Your task to perform on an android device: Open notification settings Image 0: 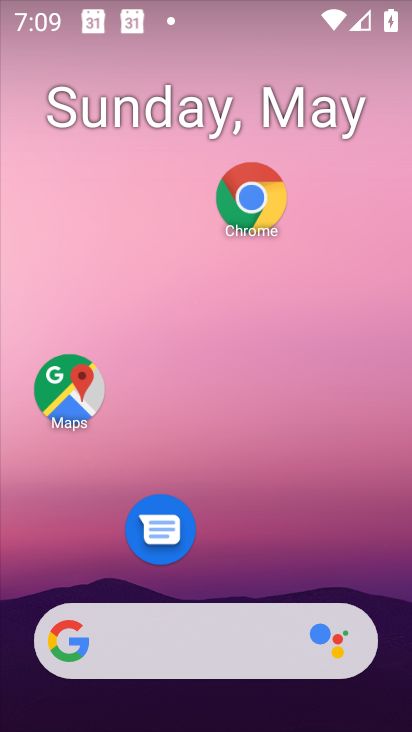
Step 0: drag from (215, 561) to (241, 221)
Your task to perform on an android device: Open notification settings Image 1: 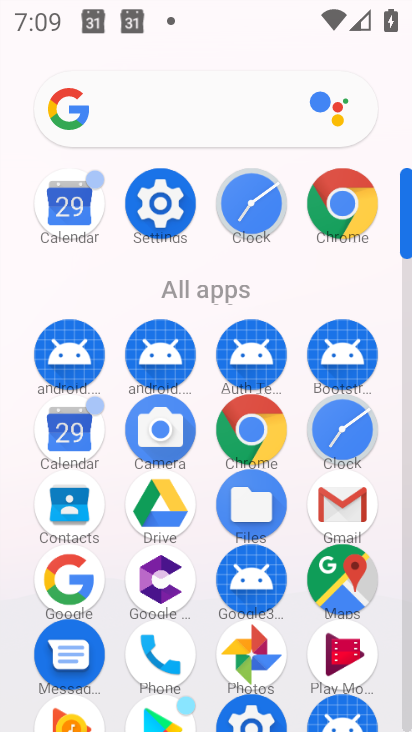
Step 1: click (162, 192)
Your task to perform on an android device: Open notification settings Image 2: 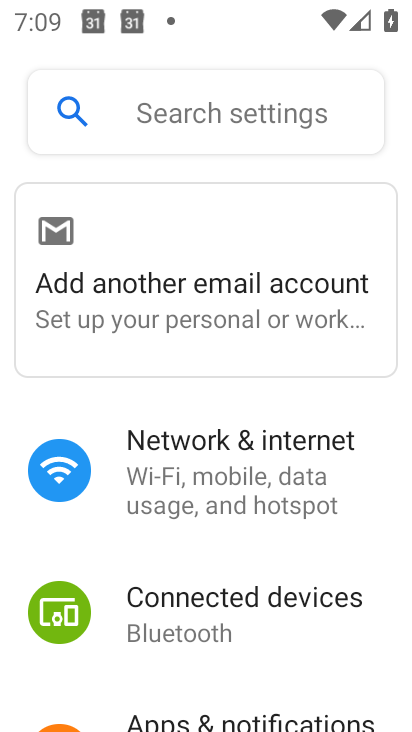
Step 2: drag from (214, 704) to (268, 419)
Your task to perform on an android device: Open notification settings Image 3: 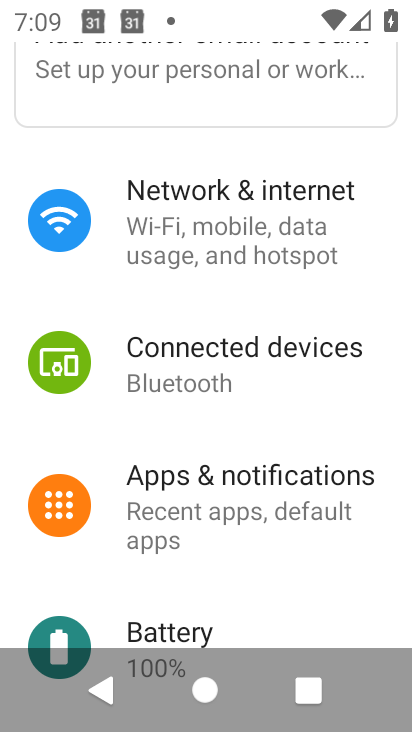
Step 3: click (211, 495)
Your task to perform on an android device: Open notification settings Image 4: 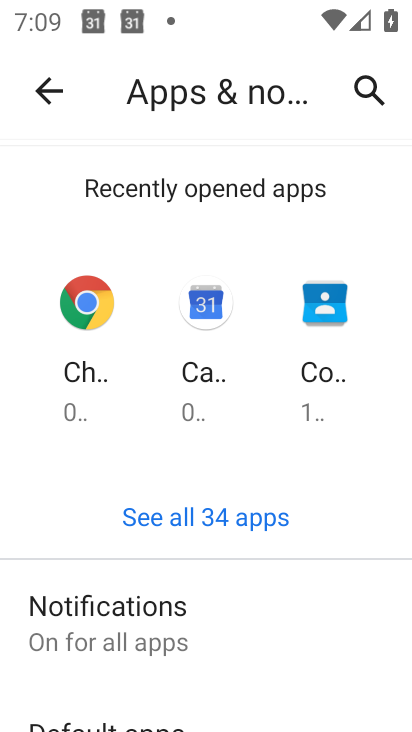
Step 4: task complete